Your task to perform on an android device: turn off smart reply in the gmail app Image 0: 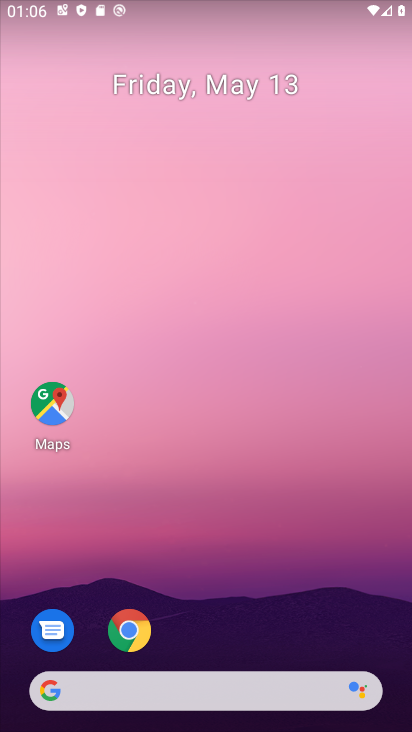
Step 0: drag from (283, 697) to (299, 252)
Your task to perform on an android device: turn off smart reply in the gmail app Image 1: 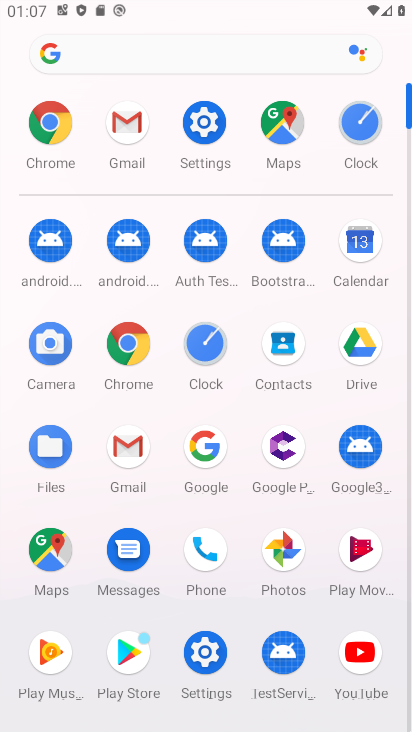
Step 1: click (130, 447)
Your task to perform on an android device: turn off smart reply in the gmail app Image 2: 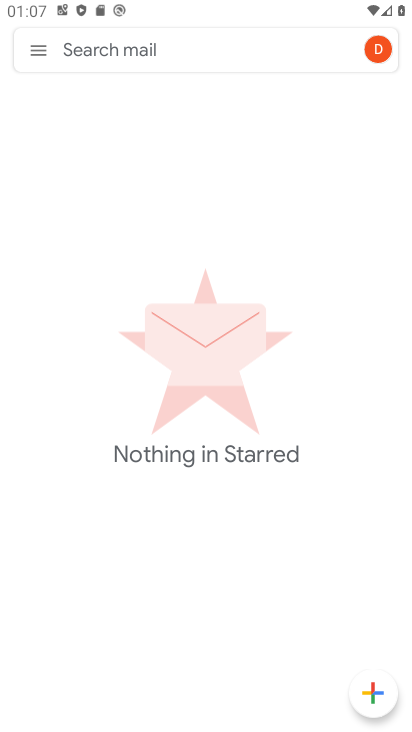
Step 2: click (41, 51)
Your task to perform on an android device: turn off smart reply in the gmail app Image 3: 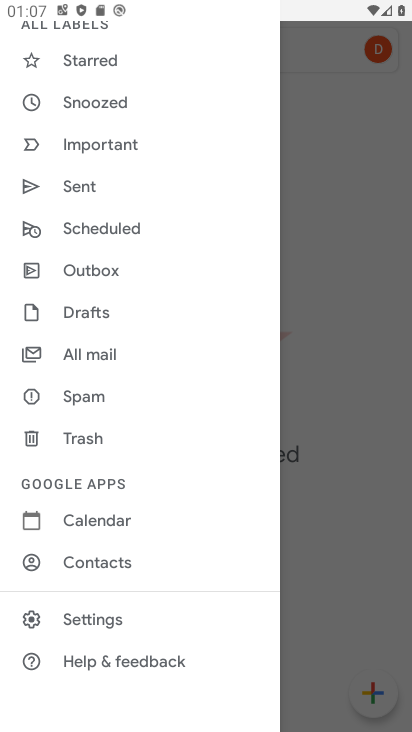
Step 3: click (115, 616)
Your task to perform on an android device: turn off smart reply in the gmail app Image 4: 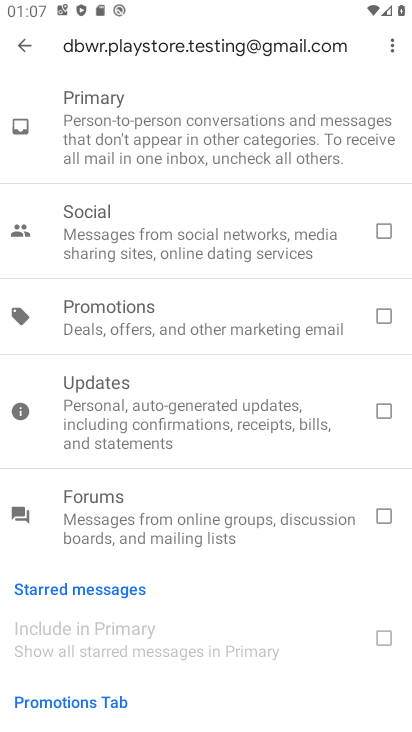
Step 4: drag from (186, 607) to (208, 398)
Your task to perform on an android device: turn off smart reply in the gmail app Image 5: 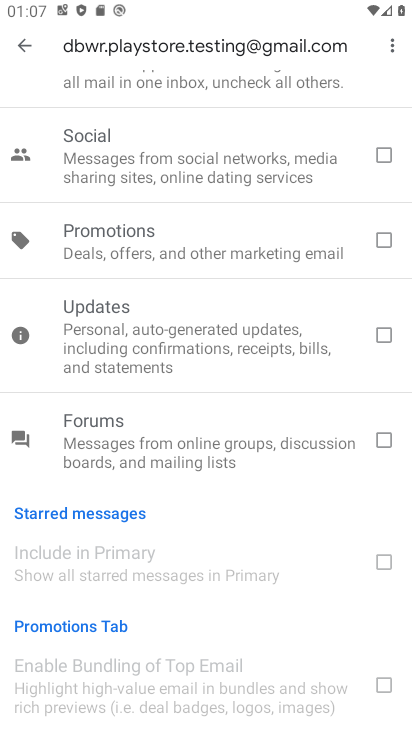
Step 5: click (12, 39)
Your task to perform on an android device: turn off smart reply in the gmail app Image 6: 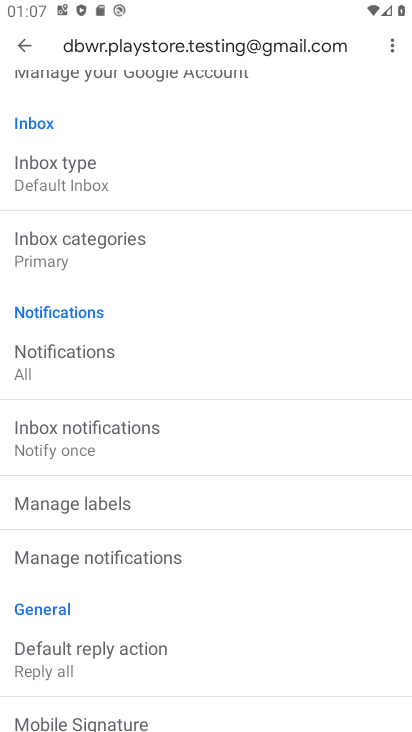
Step 6: drag from (174, 605) to (190, 329)
Your task to perform on an android device: turn off smart reply in the gmail app Image 7: 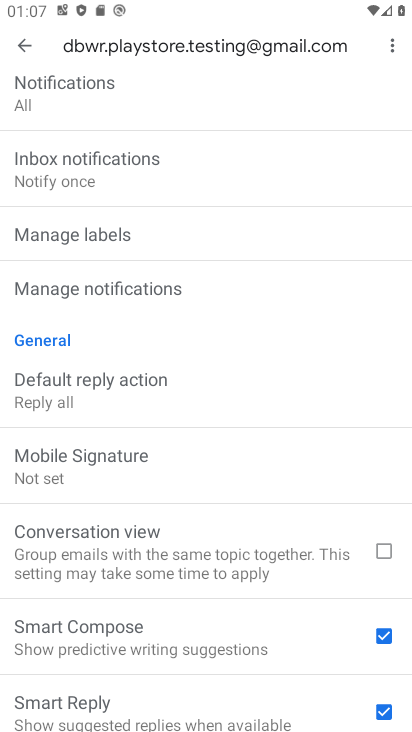
Step 7: drag from (209, 626) to (229, 552)
Your task to perform on an android device: turn off smart reply in the gmail app Image 8: 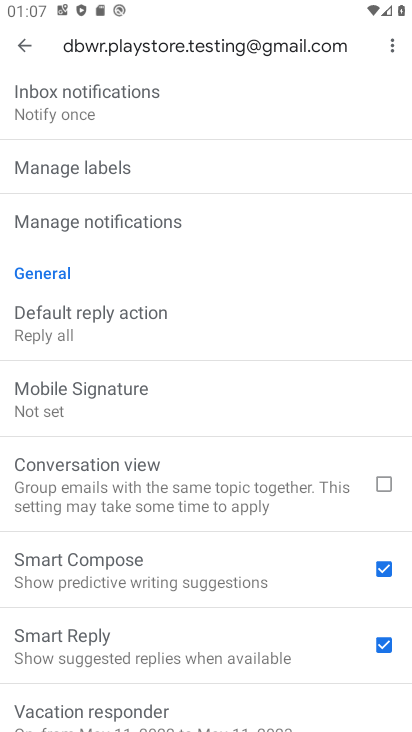
Step 8: click (333, 653)
Your task to perform on an android device: turn off smart reply in the gmail app Image 9: 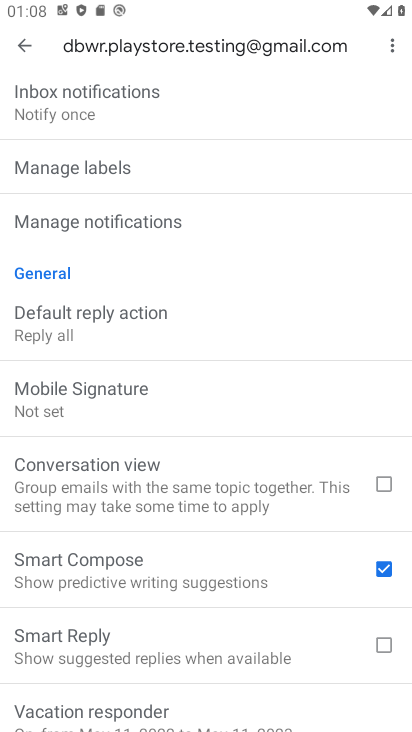
Step 9: task complete